Your task to perform on an android device: Open the stopwatch Image 0: 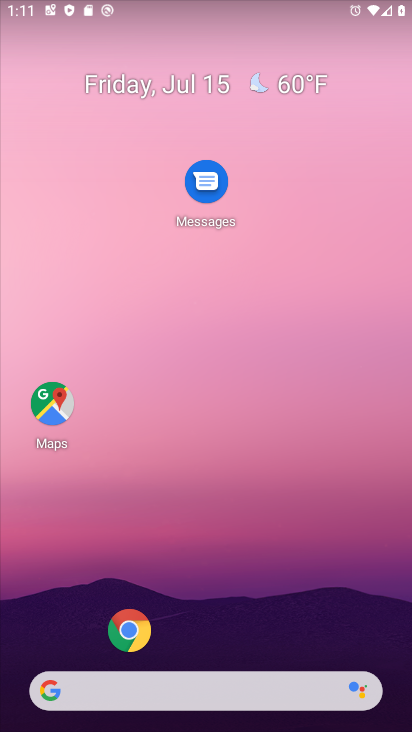
Step 0: drag from (38, 639) to (276, 0)
Your task to perform on an android device: Open the stopwatch Image 1: 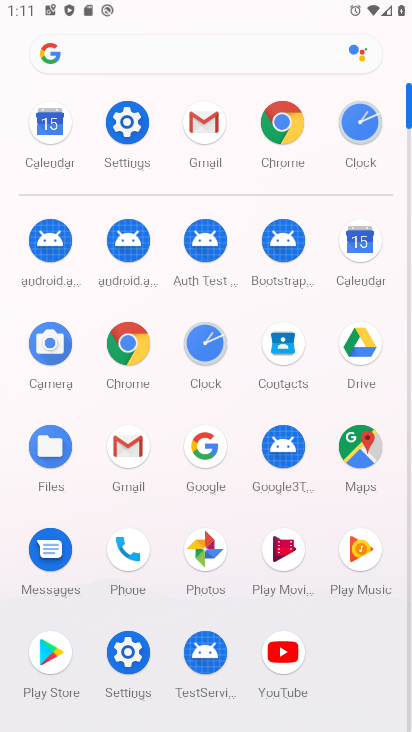
Step 1: click (366, 138)
Your task to perform on an android device: Open the stopwatch Image 2: 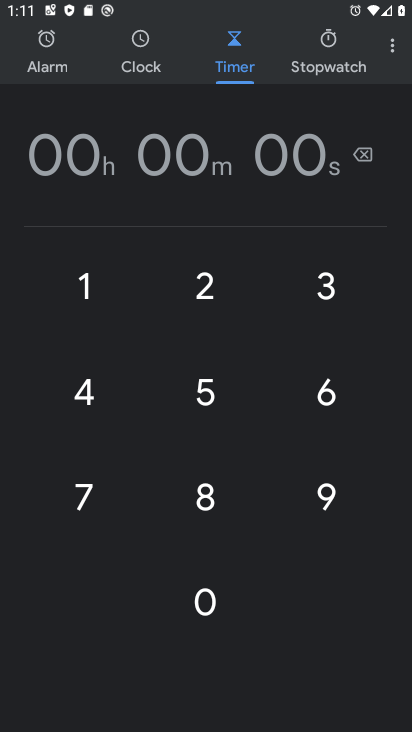
Step 2: click (312, 50)
Your task to perform on an android device: Open the stopwatch Image 3: 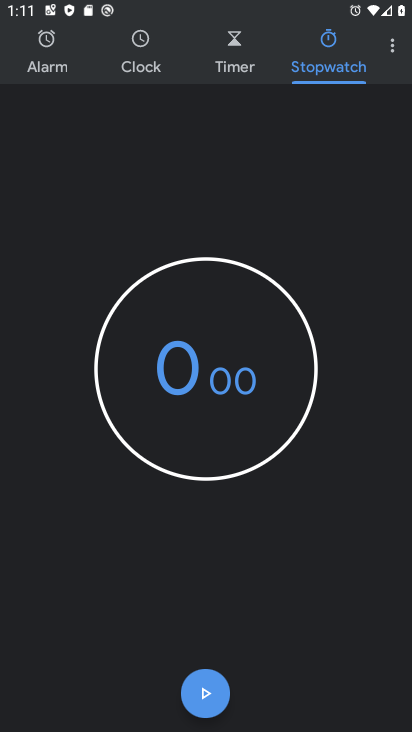
Step 3: click (199, 380)
Your task to perform on an android device: Open the stopwatch Image 4: 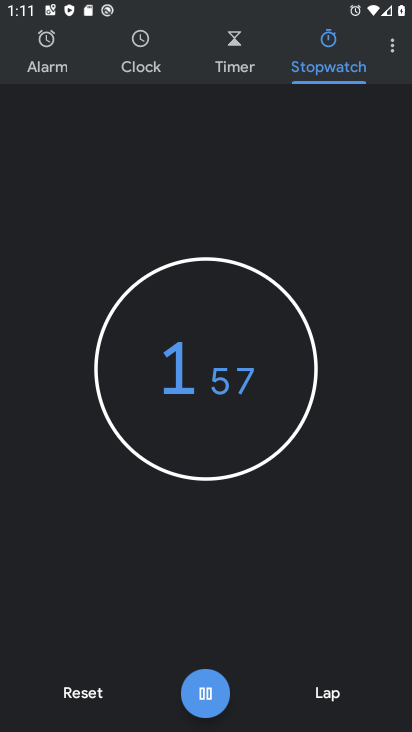
Step 4: click (208, 388)
Your task to perform on an android device: Open the stopwatch Image 5: 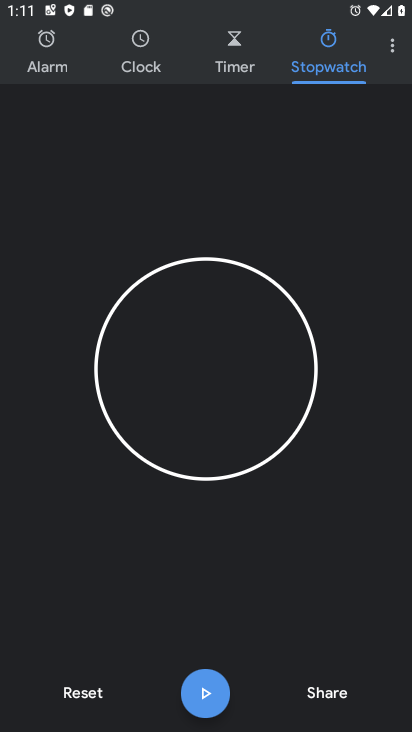
Step 5: task complete